Your task to perform on an android device: Show me recent news Image 0: 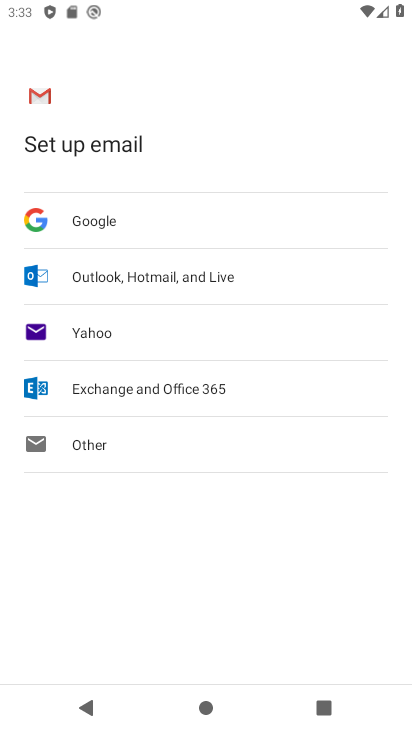
Step 0: press home button
Your task to perform on an android device: Show me recent news Image 1: 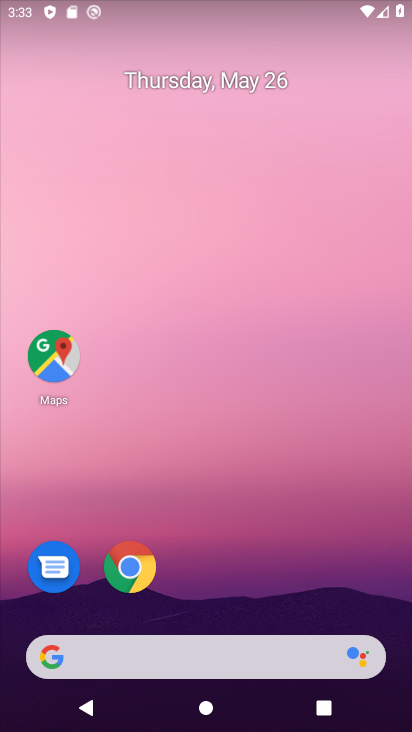
Step 1: task complete